Your task to perform on an android device: find which apps use the phone's location Image 0: 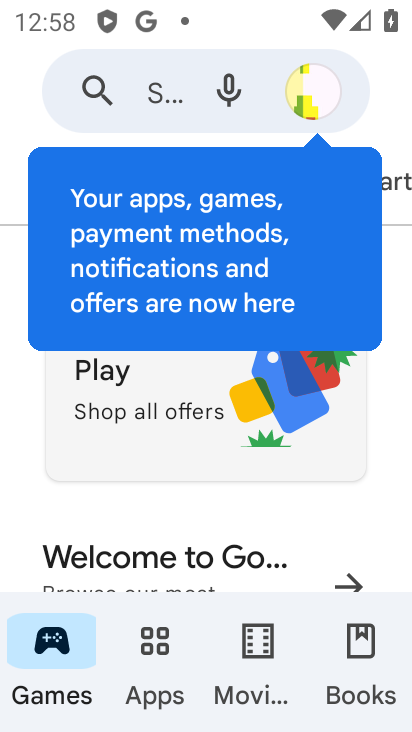
Step 0: press home button
Your task to perform on an android device: find which apps use the phone's location Image 1: 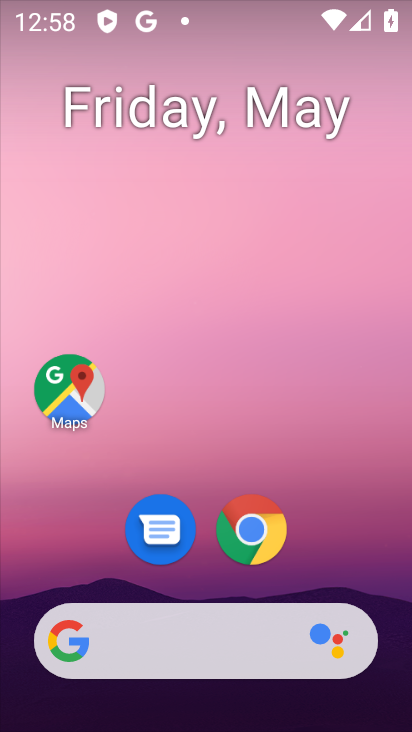
Step 1: drag from (65, 580) to (210, 42)
Your task to perform on an android device: find which apps use the phone's location Image 2: 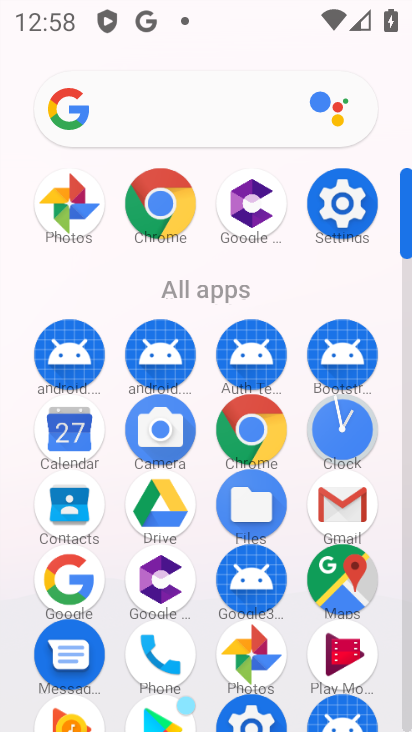
Step 2: drag from (186, 623) to (307, 205)
Your task to perform on an android device: find which apps use the phone's location Image 3: 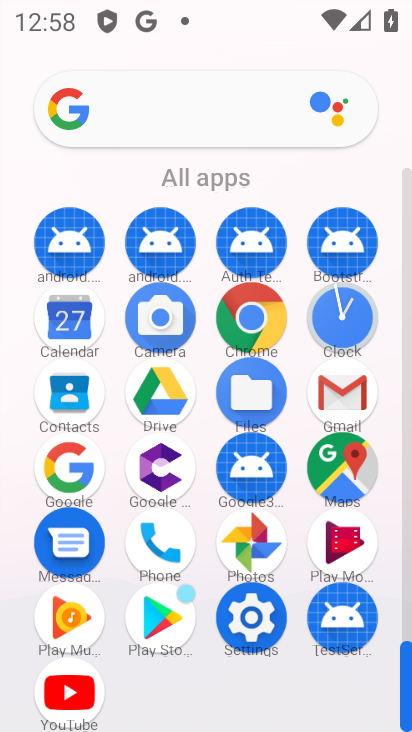
Step 3: click (254, 618)
Your task to perform on an android device: find which apps use the phone's location Image 4: 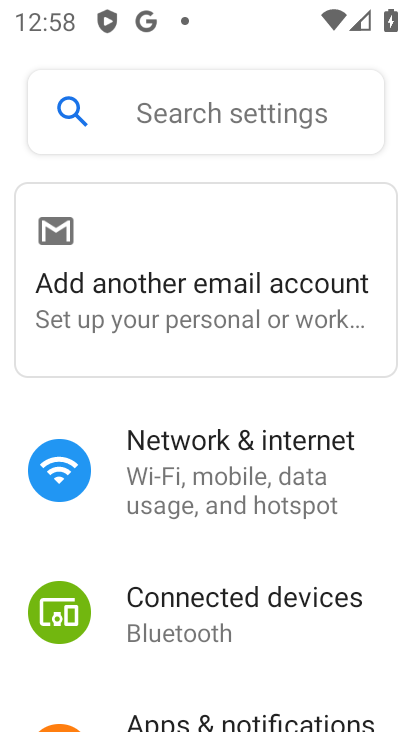
Step 4: drag from (216, 631) to (352, 140)
Your task to perform on an android device: find which apps use the phone's location Image 5: 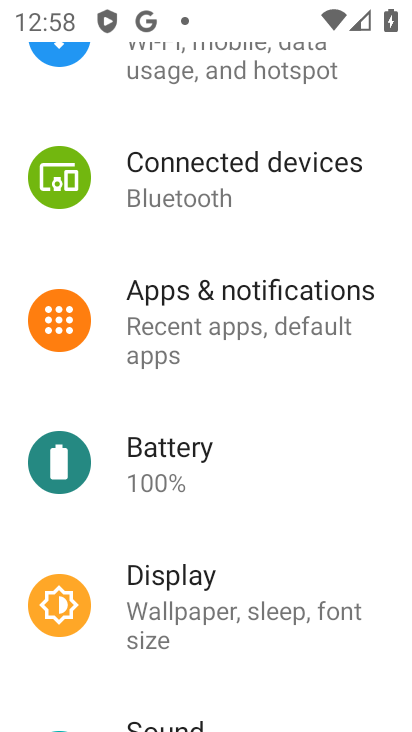
Step 5: drag from (279, 546) to (400, 145)
Your task to perform on an android device: find which apps use the phone's location Image 6: 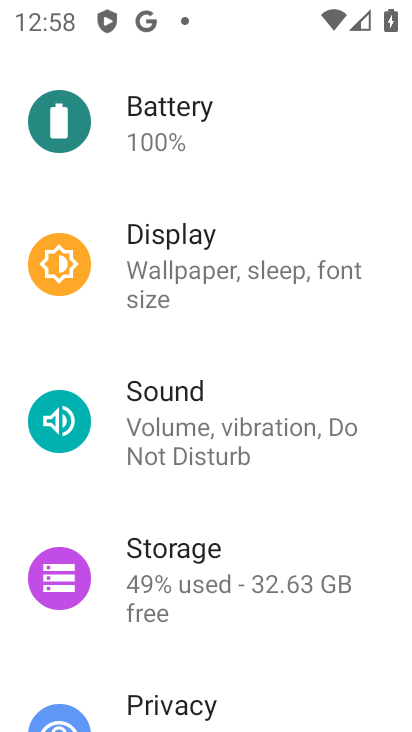
Step 6: drag from (258, 463) to (335, 187)
Your task to perform on an android device: find which apps use the phone's location Image 7: 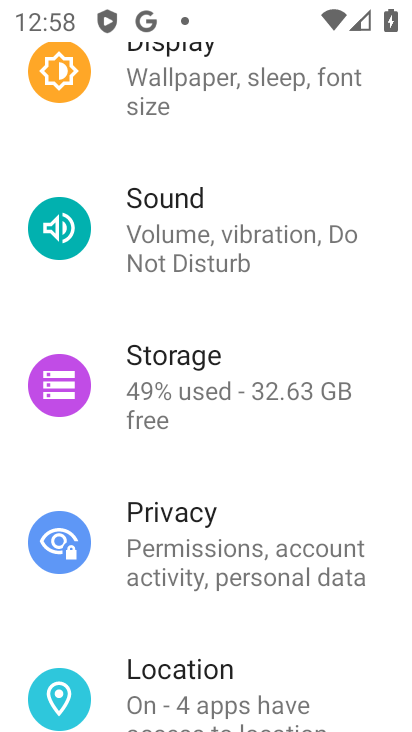
Step 7: click (196, 676)
Your task to perform on an android device: find which apps use the phone's location Image 8: 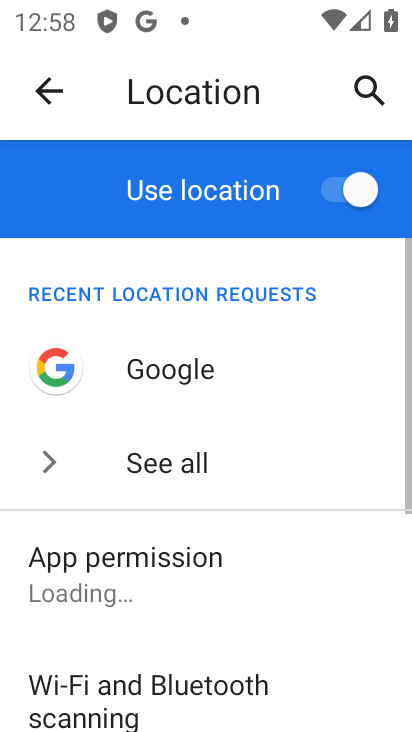
Step 8: drag from (179, 673) to (272, 395)
Your task to perform on an android device: find which apps use the phone's location Image 9: 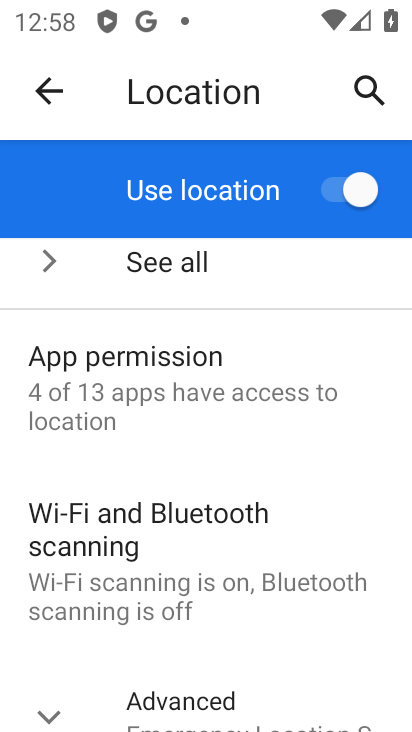
Step 9: drag from (236, 658) to (291, 478)
Your task to perform on an android device: find which apps use the phone's location Image 10: 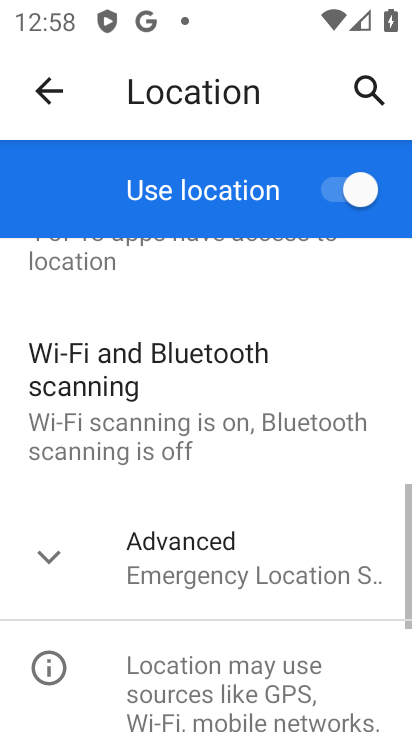
Step 10: click (202, 274)
Your task to perform on an android device: find which apps use the phone's location Image 11: 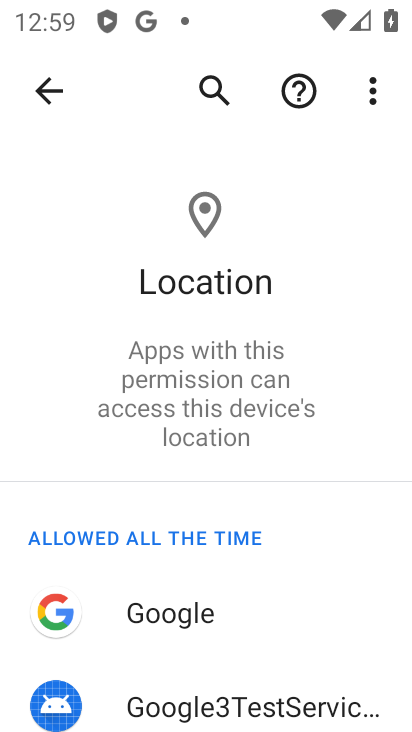
Step 11: task complete